Your task to perform on an android device: Is it going to rain tomorrow? Image 0: 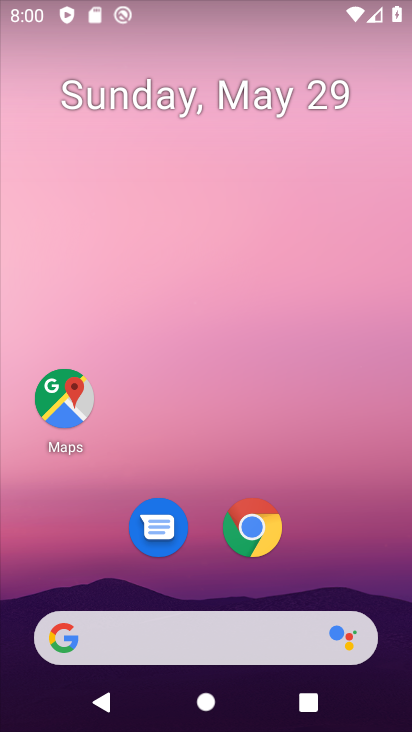
Step 0: press home button
Your task to perform on an android device: Is it going to rain tomorrow? Image 1: 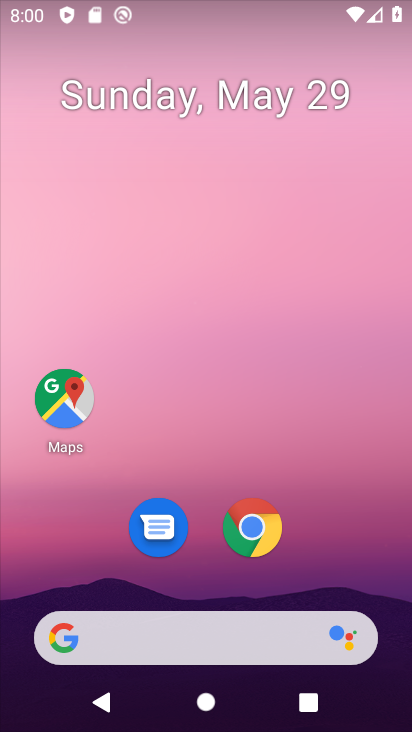
Step 1: drag from (11, 257) to (403, 279)
Your task to perform on an android device: Is it going to rain tomorrow? Image 2: 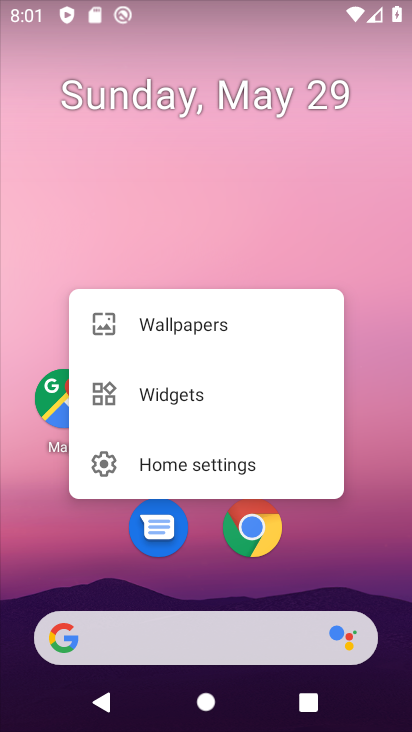
Step 2: click (38, 229)
Your task to perform on an android device: Is it going to rain tomorrow? Image 3: 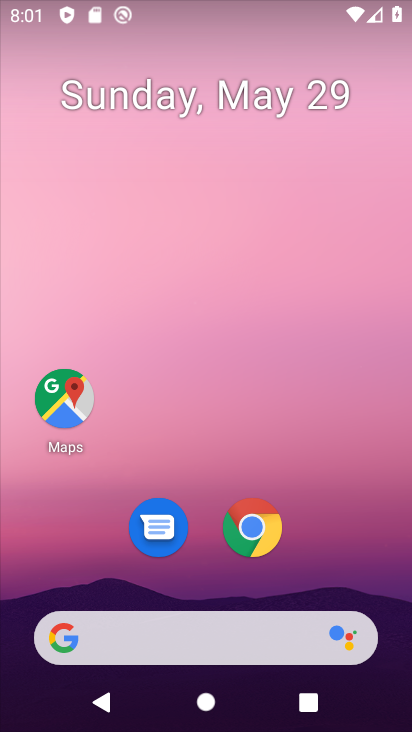
Step 3: drag from (9, 236) to (409, 285)
Your task to perform on an android device: Is it going to rain tomorrow? Image 4: 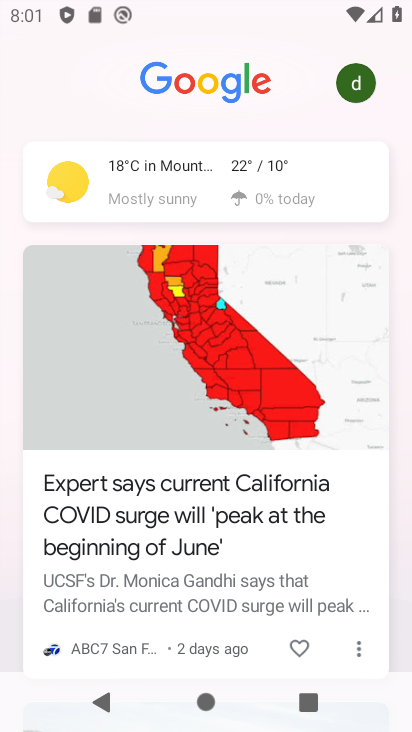
Step 4: click (264, 171)
Your task to perform on an android device: Is it going to rain tomorrow? Image 5: 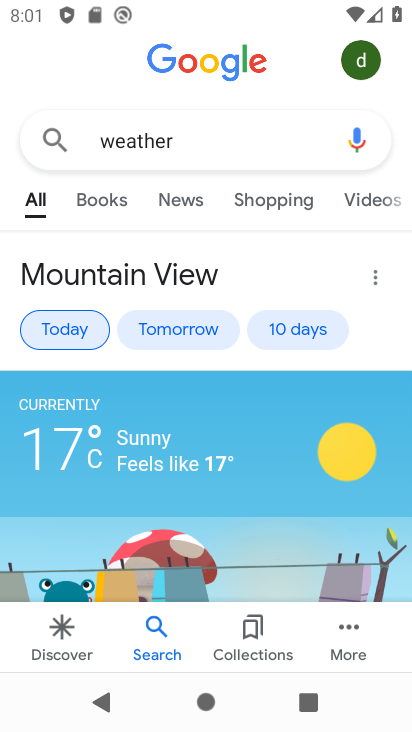
Step 5: click (177, 325)
Your task to perform on an android device: Is it going to rain tomorrow? Image 6: 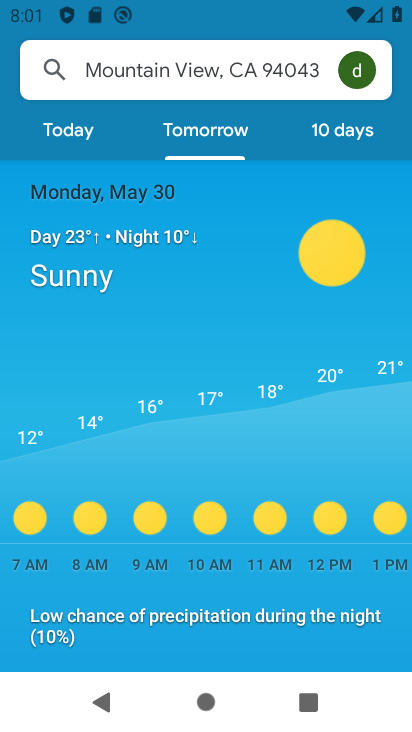
Step 6: drag from (365, 530) to (121, 530)
Your task to perform on an android device: Is it going to rain tomorrow? Image 7: 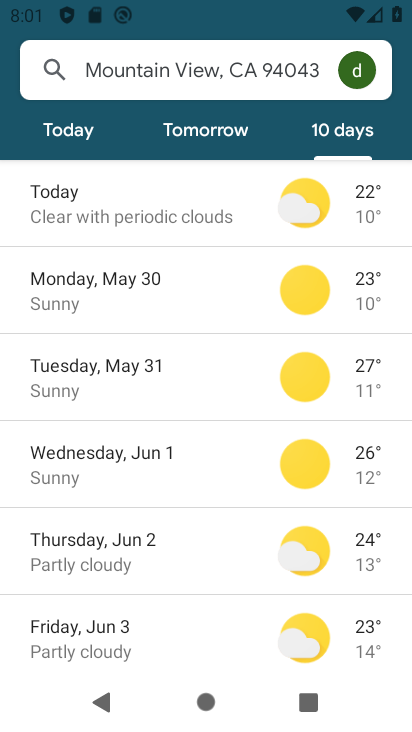
Step 7: click (191, 135)
Your task to perform on an android device: Is it going to rain tomorrow? Image 8: 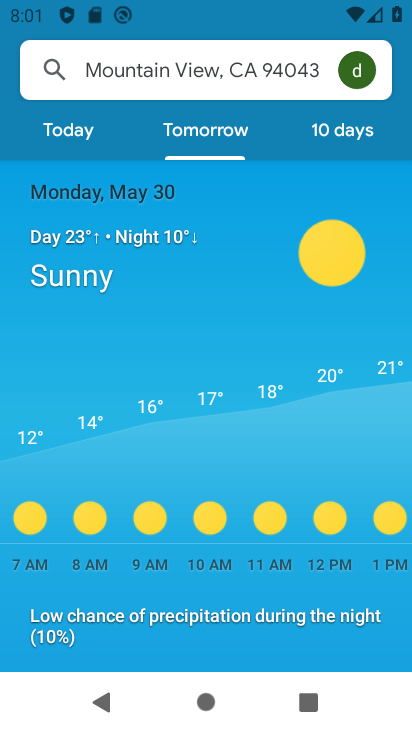
Step 8: drag from (307, 565) to (70, 561)
Your task to perform on an android device: Is it going to rain tomorrow? Image 9: 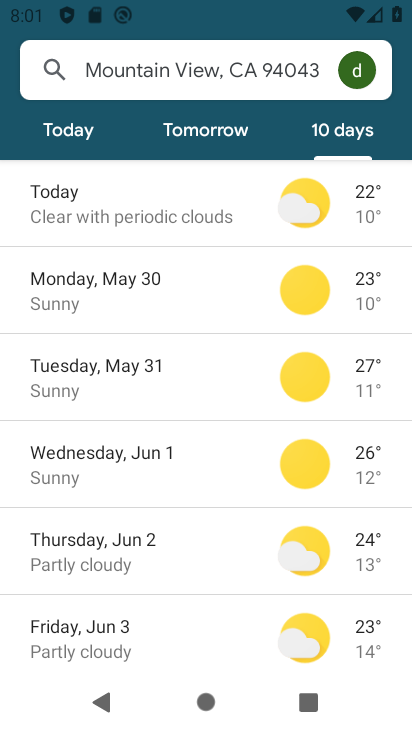
Step 9: click (199, 135)
Your task to perform on an android device: Is it going to rain tomorrow? Image 10: 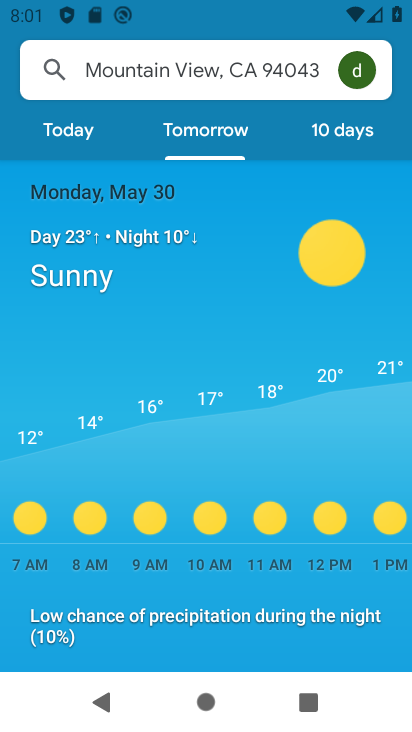
Step 10: task complete